Your task to perform on an android device: check out phone information Image 0: 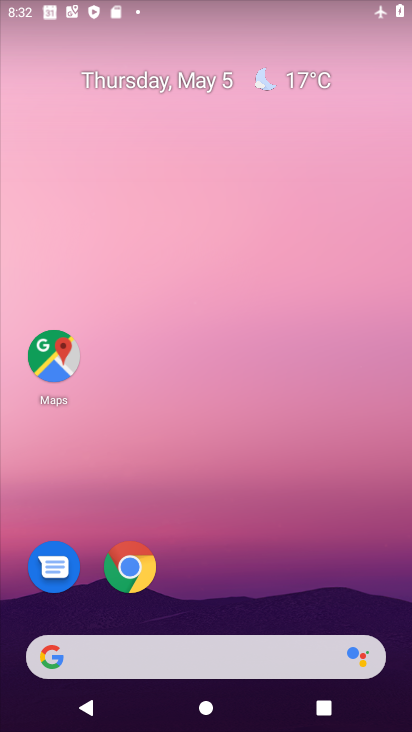
Step 0: drag from (295, 580) to (284, 14)
Your task to perform on an android device: check out phone information Image 1: 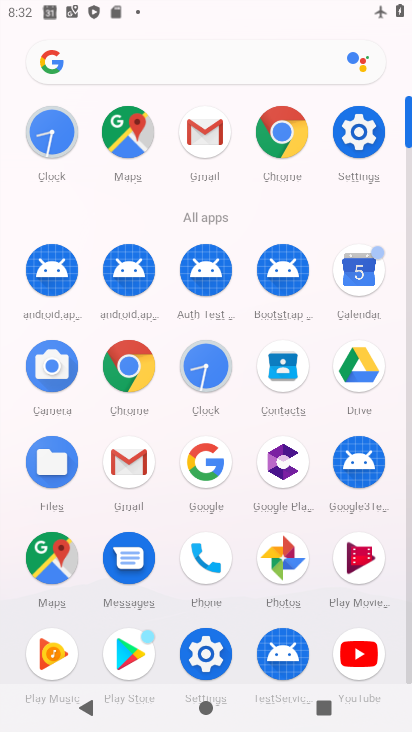
Step 1: click (208, 547)
Your task to perform on an android device: check out phone information Image 2: 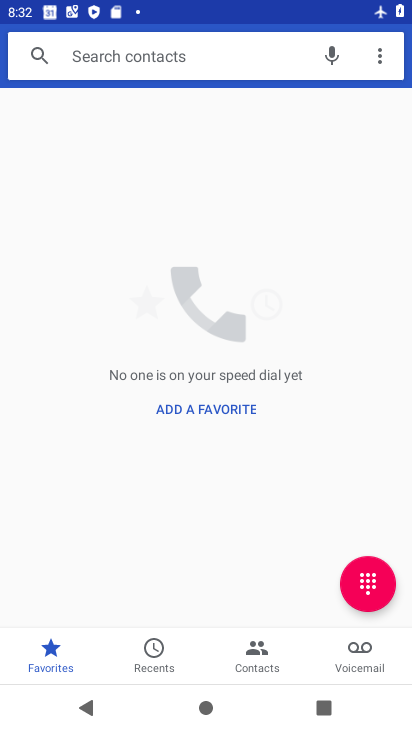
Step 2: click (383, 56)
Your task to perform on an android device: check out phone information Image 3: 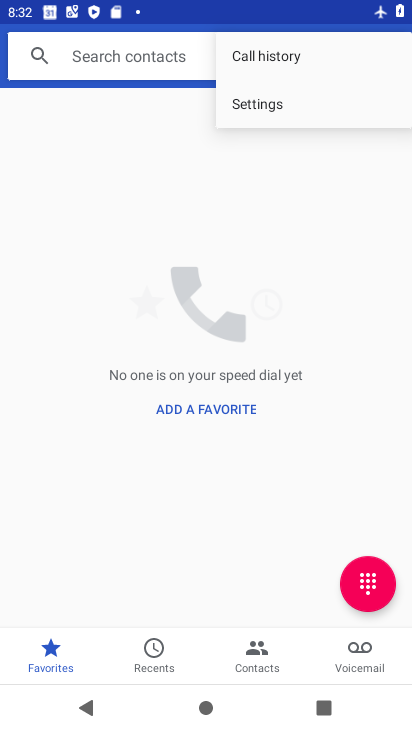
Step 3: click (338, 103)
Your task to perform on an android device: check out phone information Image 4: 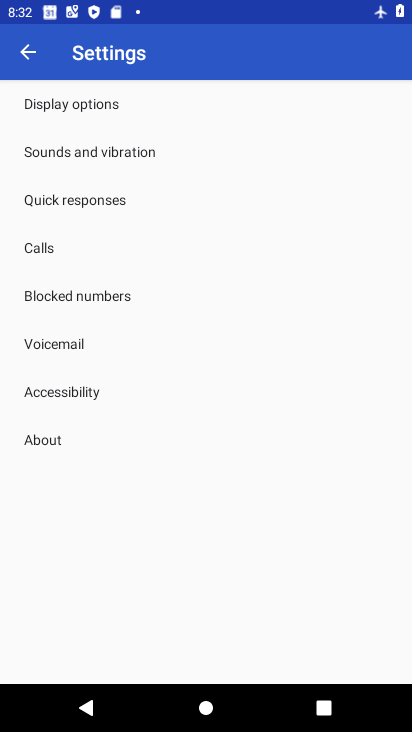
Step 4: click (47, 439)
Your task to perform on an android device: check out phone information Image 5: 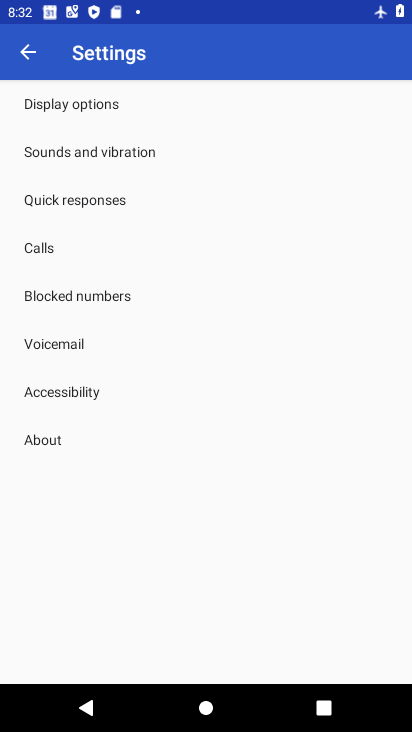
Step 5: click (47, 439)
Your task to perform on an android device: check out phone information Image 6: 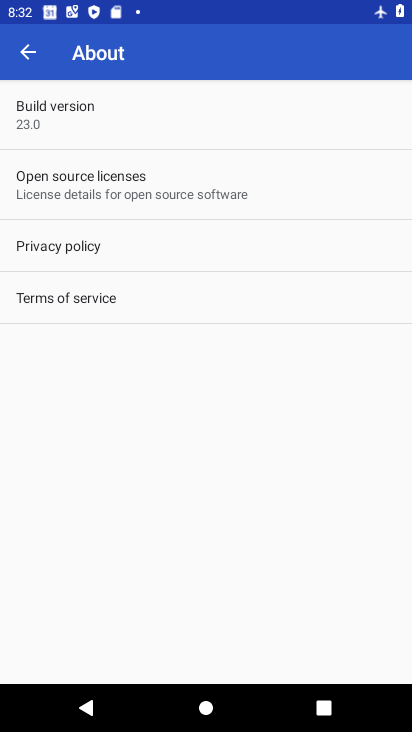
Step 6: task complete